Your task to perform on an android device: Open calendar and show me the third week of next month Image 0: 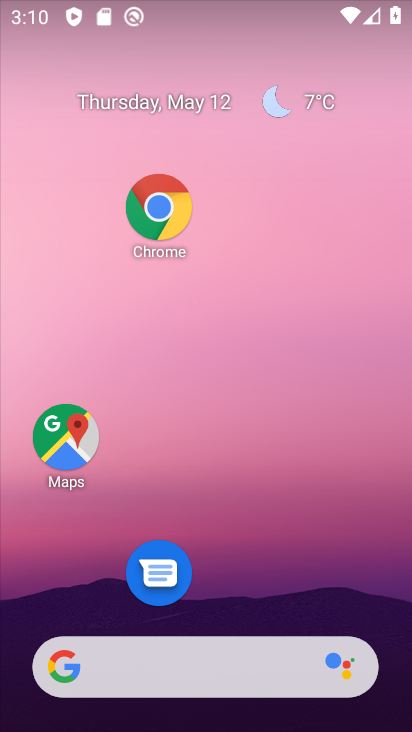
Step 0: drag from (225, 580) to (342, 4)
Your task to perform on an android device: Open calendar and show me the third week of next month Image 1: 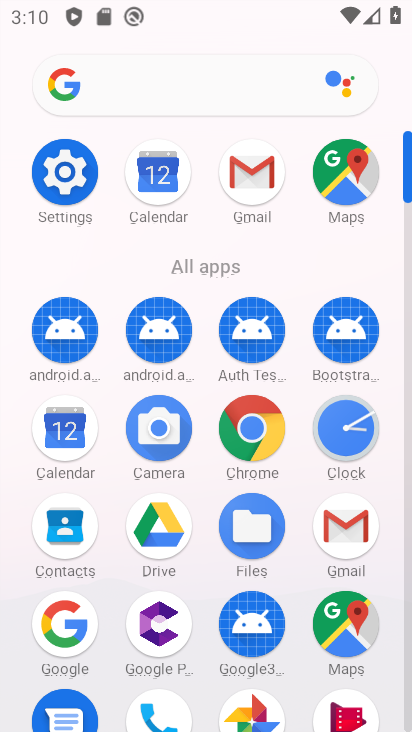
Step 1: click (90, 434)
Your task to perform on an android device: Open calendar and show me the third week of next month Image 2: 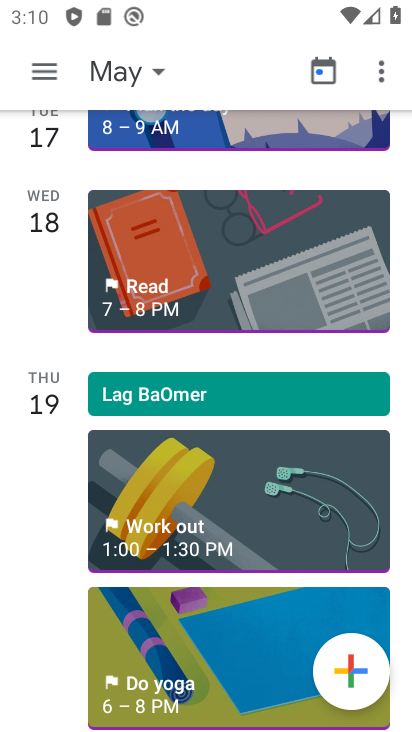
Step 2: click (57, 77)
Your task to perform on an android device: Open calendar and show me the third week of next month Image 3: 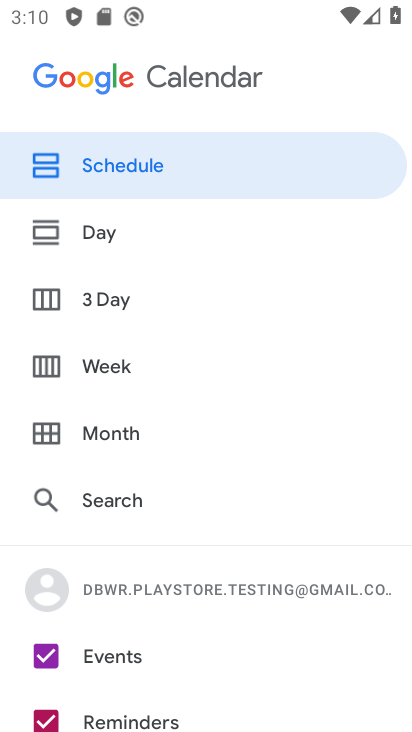
Step 3: drag from (185, 431) to (223, 256)
Your task to perform on an android device: Open calendar and show me the third week of next month Image 4: 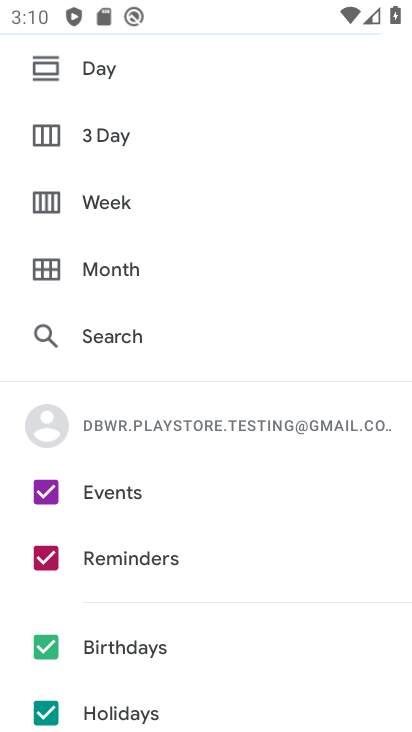
Step 4: click (149, 217)
Your task to perform on an android device: Open calendar and show me the third week of next month Image 5: 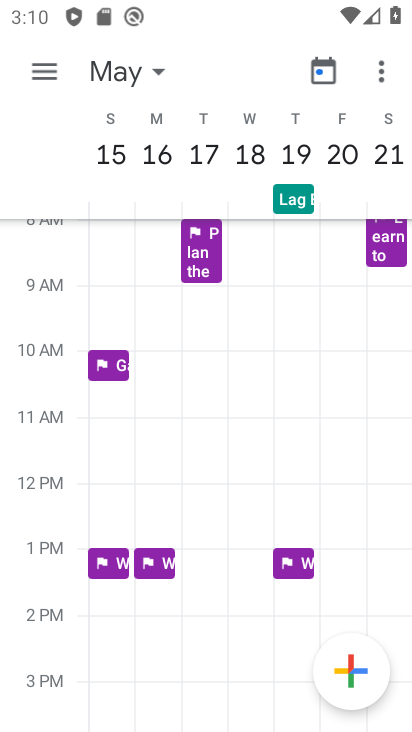
Step 5: task complete